Your task to perform on an android device: add a contact Image 0: 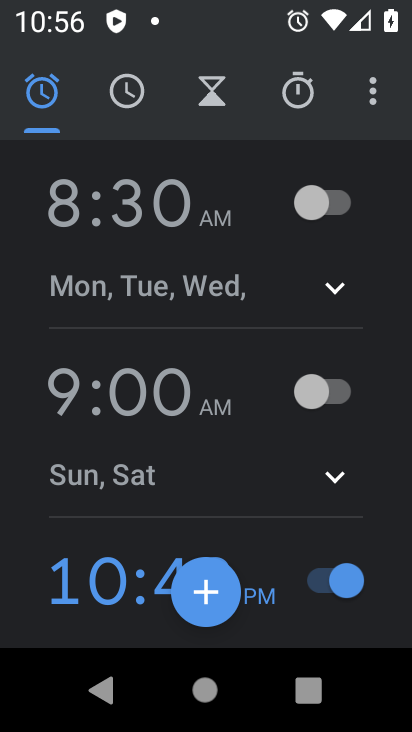
Step 0: press home button
Your task to perform on an android device: add a contact Image 1: 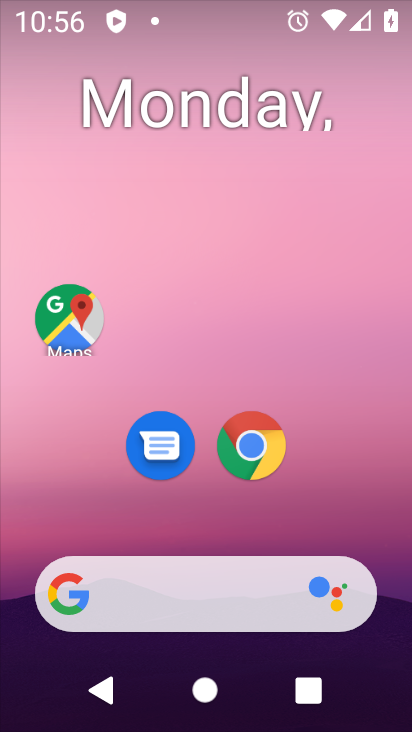
Step 1: drag from (353, 454) to (266, 145)
Your task to perform on an android device: add a contact Image 2: 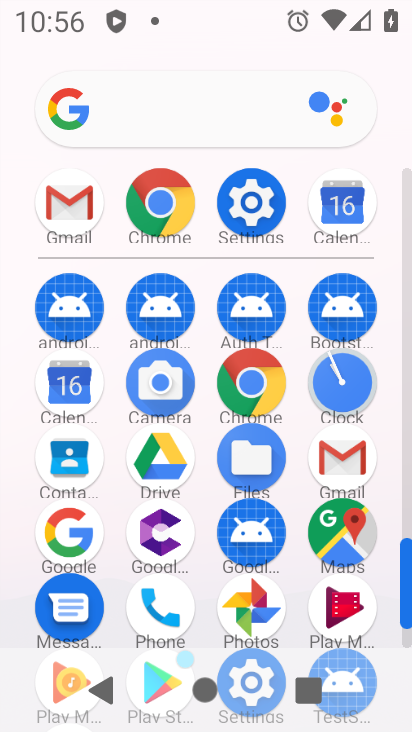
Step 2: click (57, 444)
Your task to perform on an android device: add a contact Image 3: 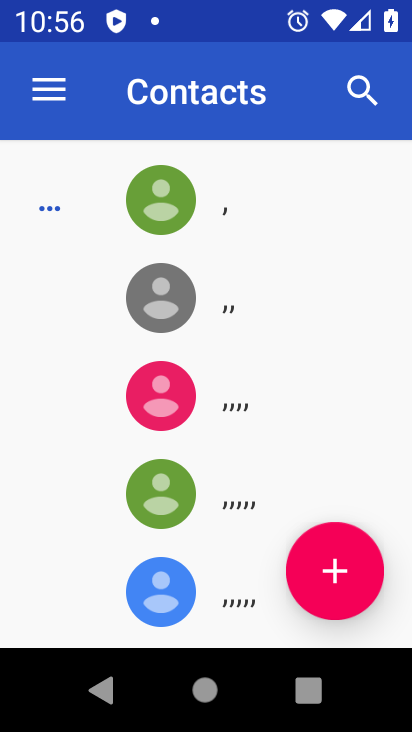
Step 3: click (301, 567)
Your task to perform on an android device: add a contact Image 4: 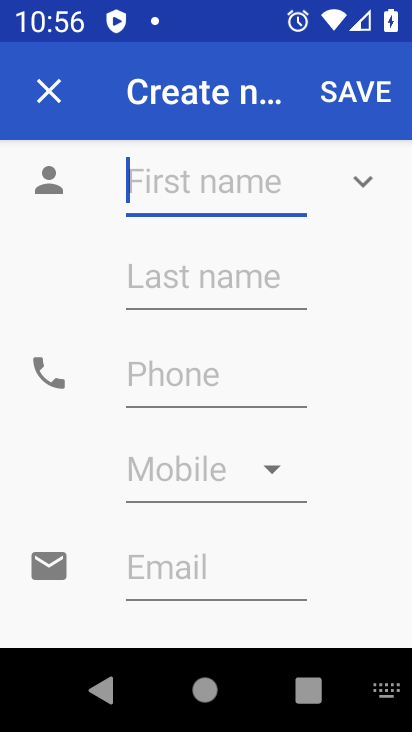
Step 4: click (207, 180)
Your task to perform on an android device: add a contact Image 5: 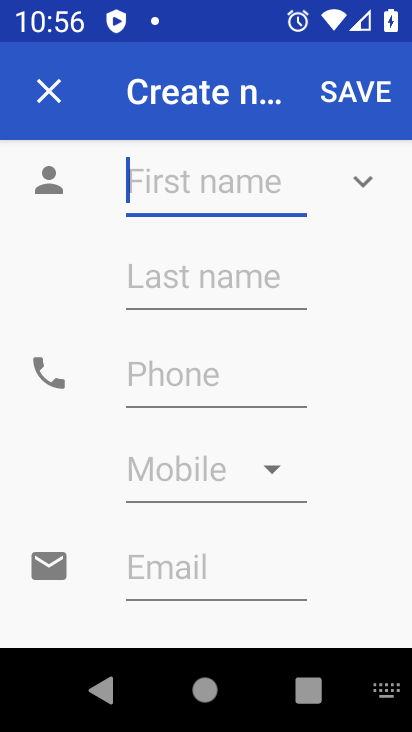
Step 5: type "julia"
Your task to perform on an android device: add a contact Image 6: 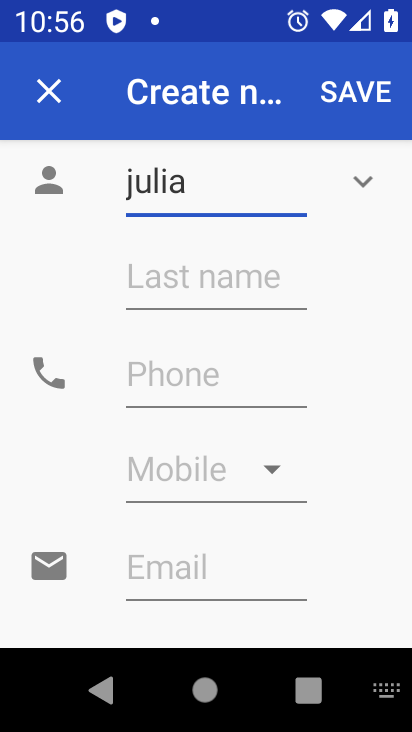
Step 6: click (165, 386)
Your task to perform on an android device: add a contact Image 7: 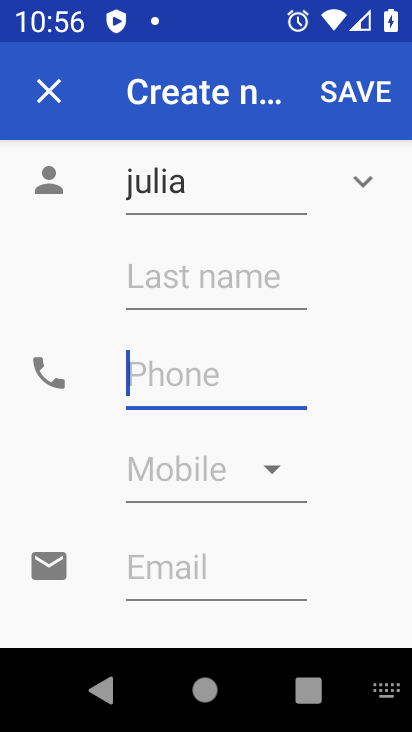
Step 7: type "755454353"
Your task to perform on an android device: add a contact Image 8: 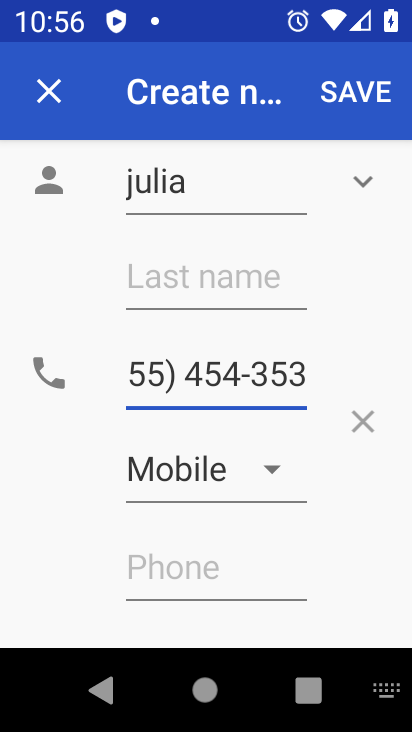
Step 8: type "5"
Your task to perform on an android device: add a contact Image 9: 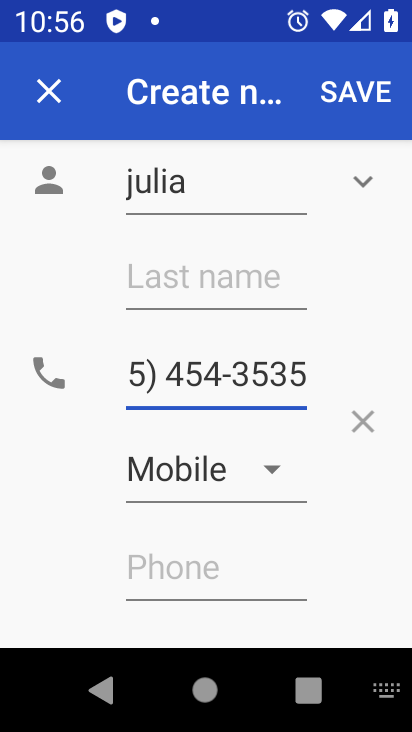
Step 9: click (373, 85)
Your task to perform on an android device: add a contact Image 10: 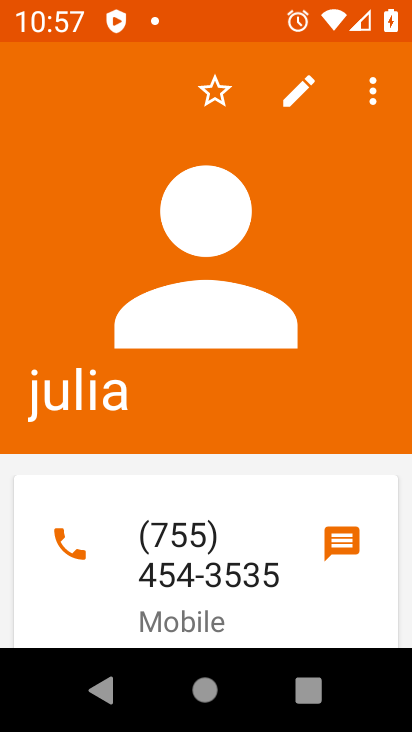
Step 10: task complete